Your task to perform on an android device: turn notification dots on Image 0: 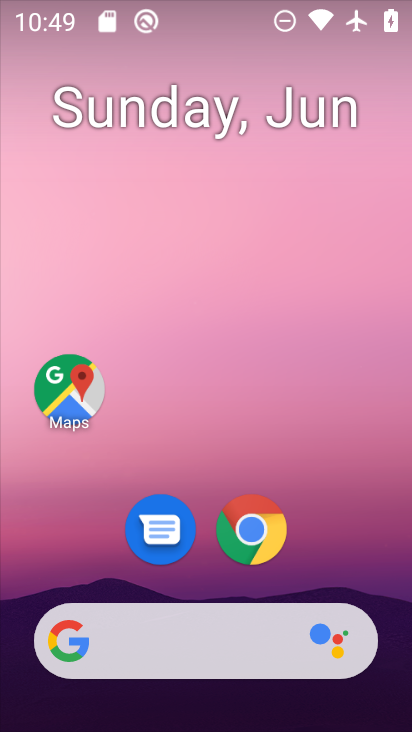
Step 0: drag from (396, 623) to (289, 0)
Your task to perform on an android device: turn notification dots on Image 1: 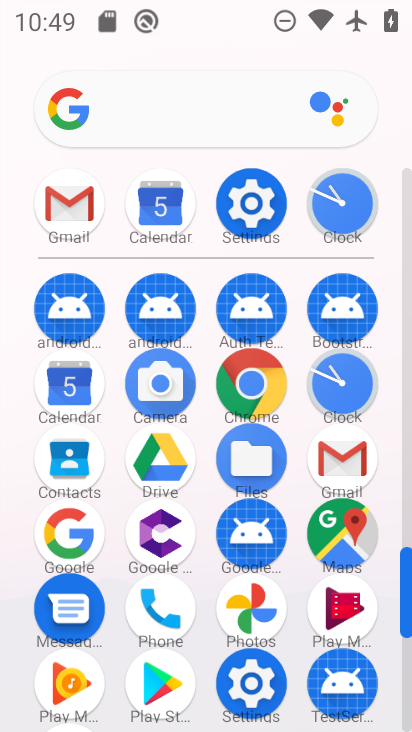
Step 1: click (252, 686)
Your task to perform on an android device: turn notification dots on Image 2: 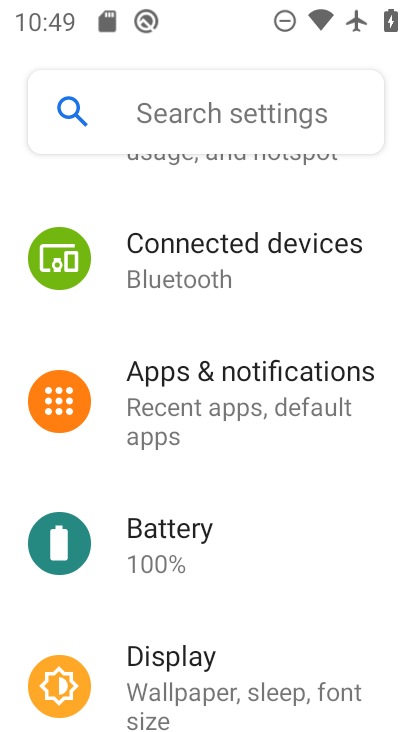
Step 2: click (203, 364)
Your task to perform on an android device: turn notification dots on Image 3: 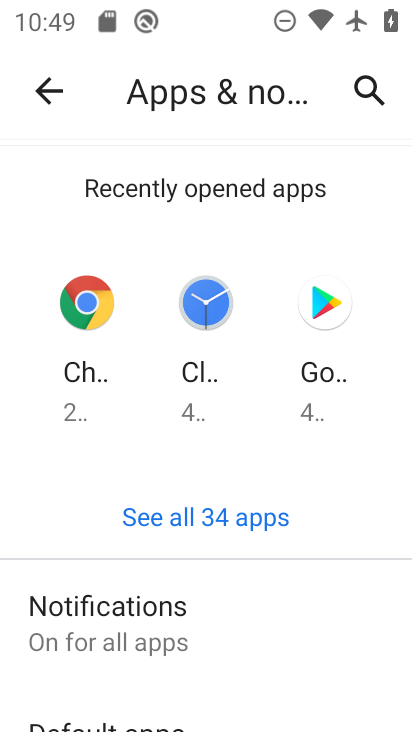
Step 3: click (190, 625)
Your task to perform on an android device: turn notification dots on Image 4: 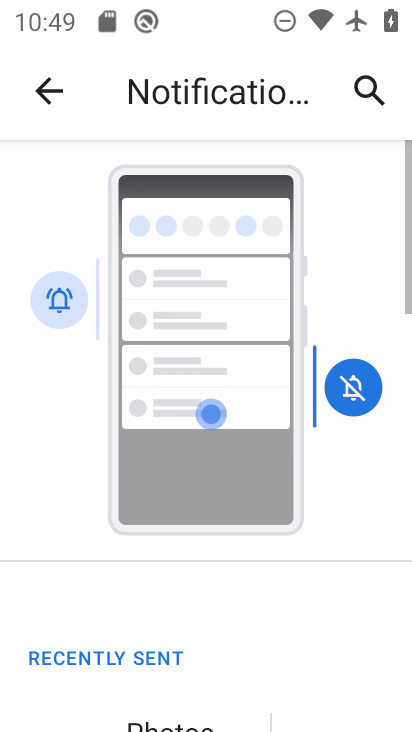
Step 4: drag from (336, 636) to (220, 91)
Your task to perform on an android device: turn notification dots on Image 5: 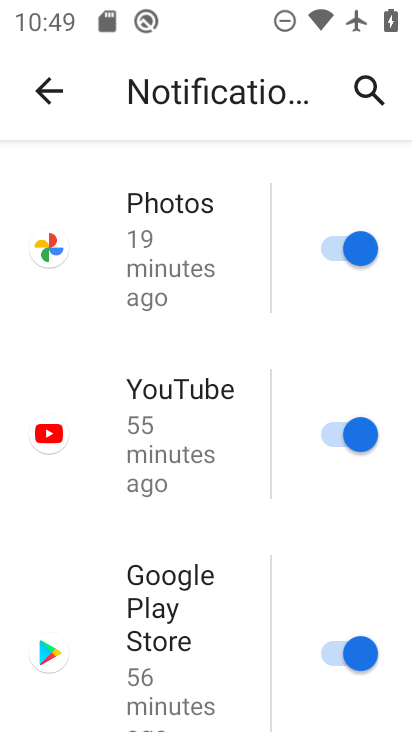
Step 5: drag from (256, 696) to (227, 107)
Your task to perform on an android device: turn notification dots on Image 6: 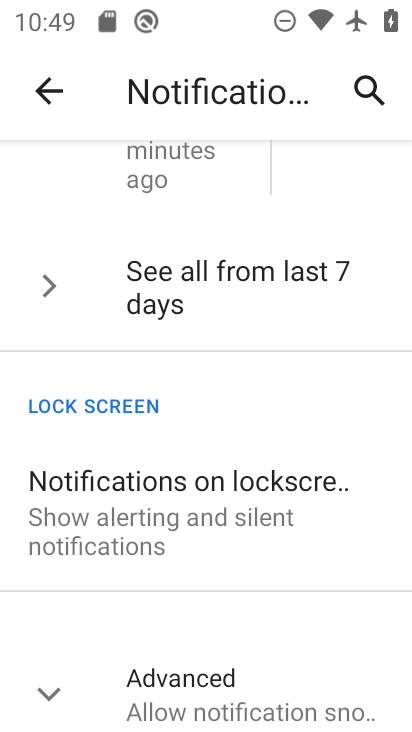
Step 6: click (45, 685)
Your task to perform on an android device: turn notification dots on Image 7: 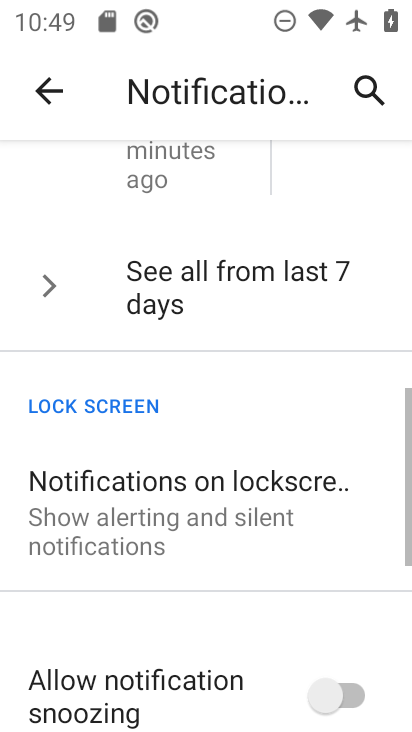
Step 7: task complete